Your task to perform on an android device: What is the recent news? Image 0: 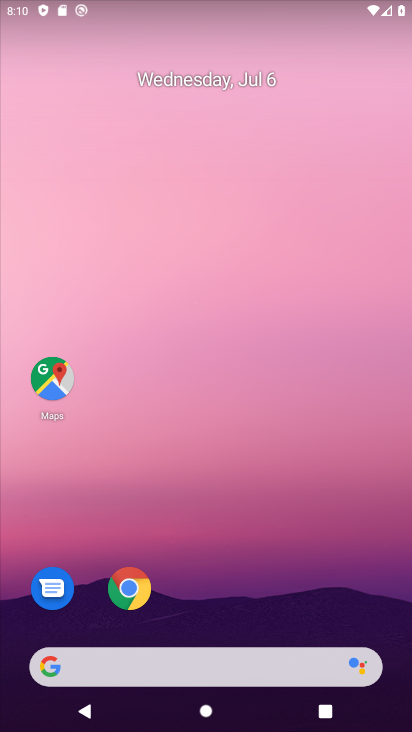
Step 0: drag from (245, 606) to (259, 184)
Your task to perform on an android device: What is the recent news? Image 1: 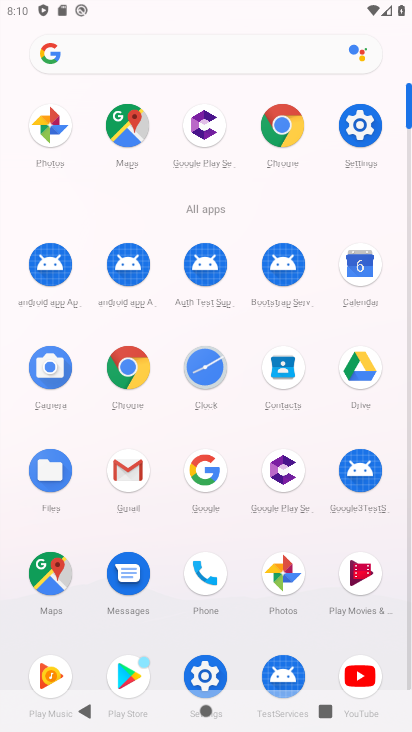
Step 1: click (205, 465)
Your task to perform on an android device: What is the recent news? Image 2: 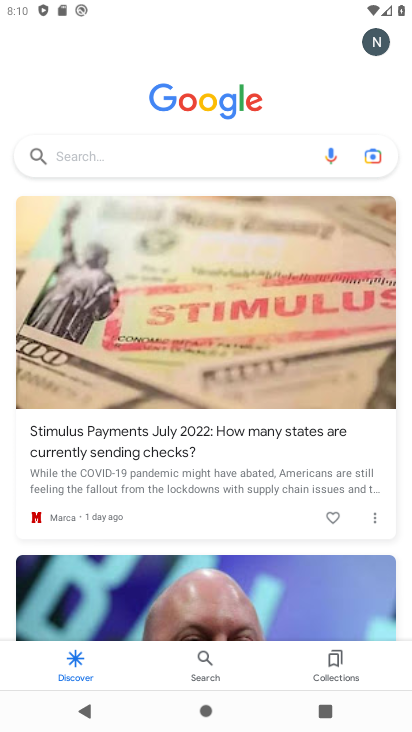
Step 2: click (170, 141)
Your task to perform on an android device: What is the recent news? Image 3: 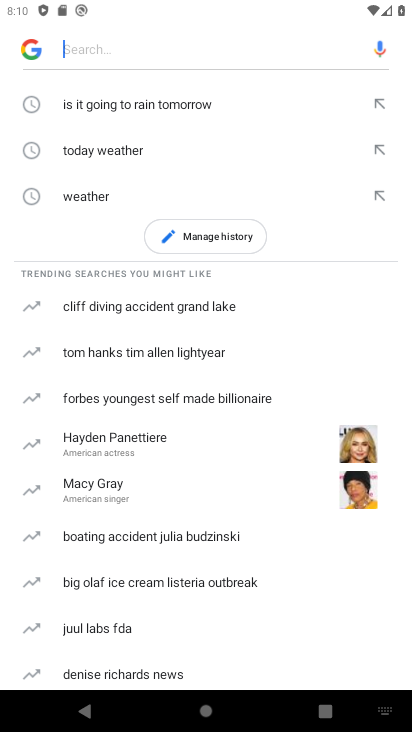
Step 3: type "What is the recent news "
Your task to perform on an android device: What is the recent news? Image 4: 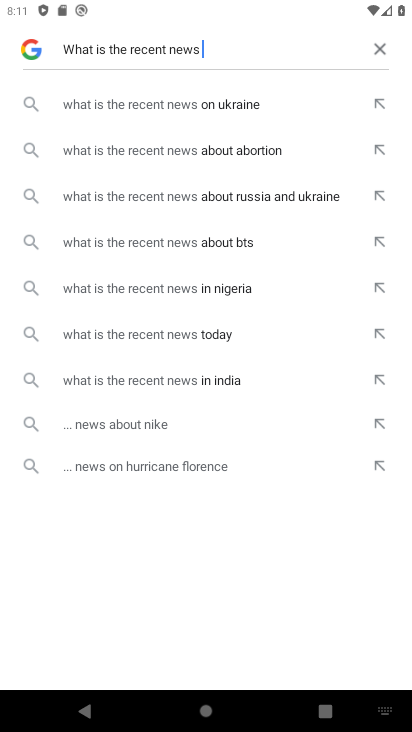
Step 4: click (127, 46)
Your task to perform on an android device: What is the recent news? Image 5: 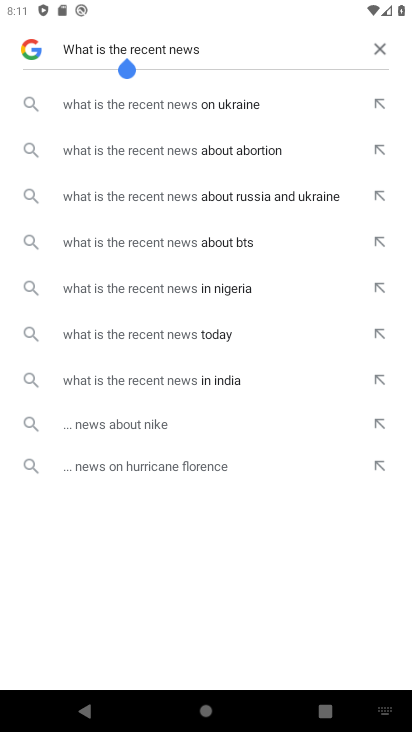
Step 5: click (188, 329)
Your task to perform on an android device: What is the recent news? Image 6: 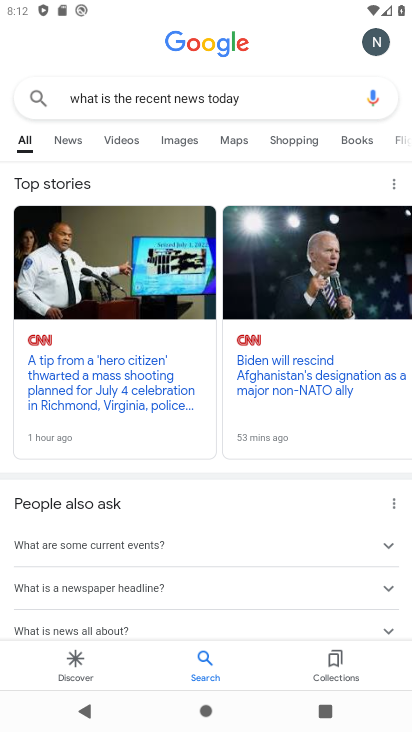
Step 6: task complete